Your task to perform on an android device: remove spam from my inbox in the gmail app Image 0: 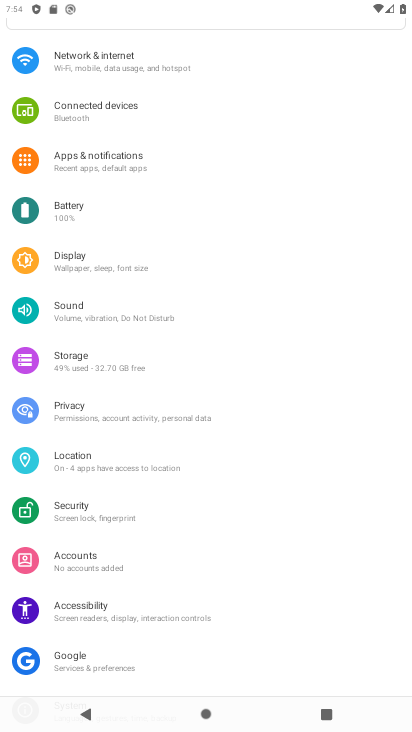
Step 0: press home button
Your task to perform on an android device: remove spam from my inbox in the gmail app Image 1: 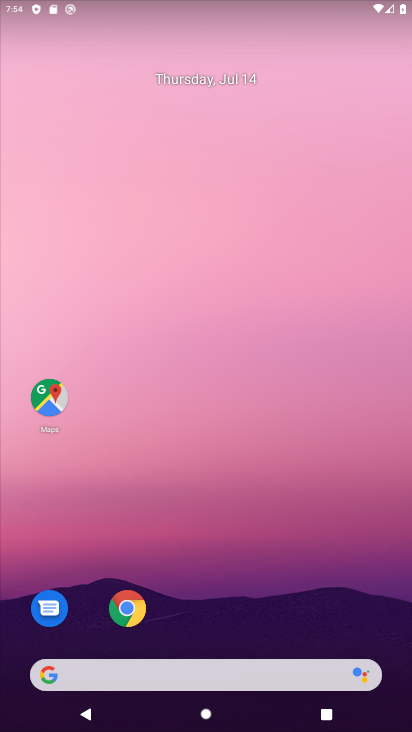
Step 1: drag from (206, 554) to (125, 77)
Your task to perform on an android device: remove spam from my inbox in the gmail app Image 2: 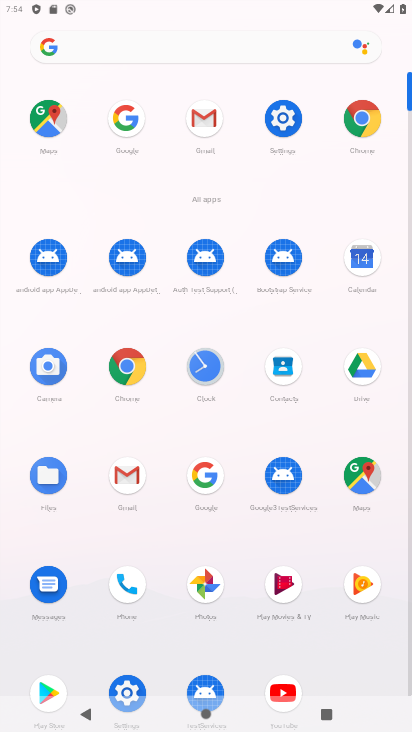
Step 2: click (201, 123)
Your task to perform on an android device: remove spam from my inbox in the gmail app Image 3: 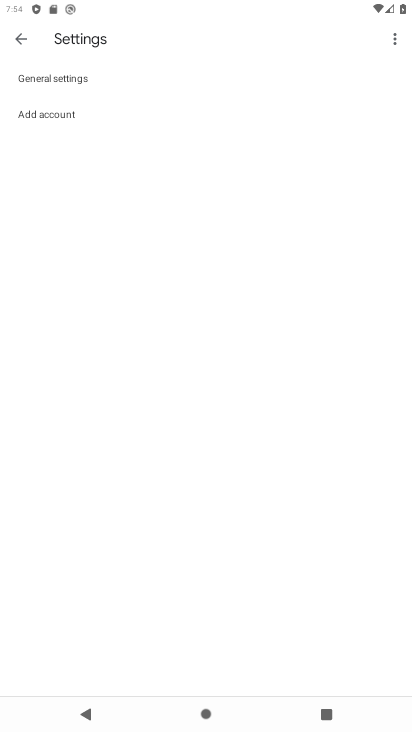
Step 3: click (20, 34)
Your task to perform on an android device: remove spam from my inbox in the gmail app Image 4: 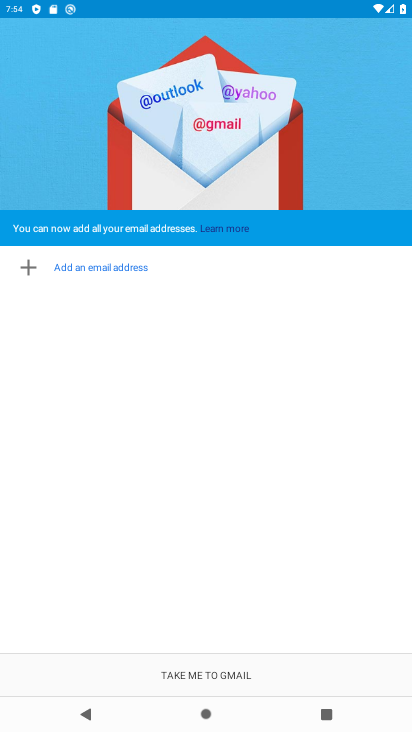
Step 4: click (223, 674)
Your task to perform on an android device: remove spam from my inbox in the gmail app Image 5: 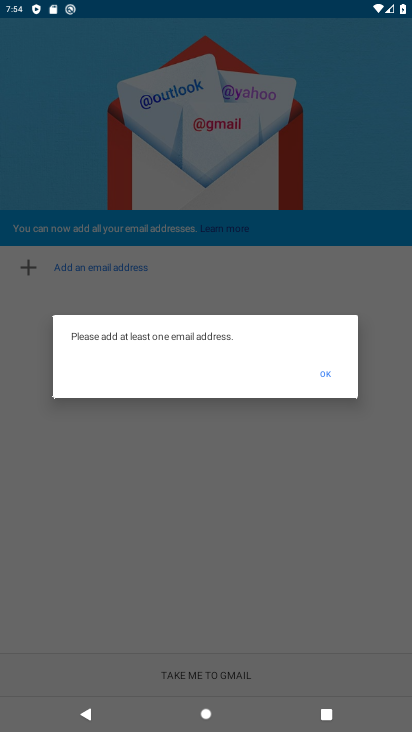
Step 5: click (323, 370)
Your task to perform on an android device: remove spam from my inbox in the gmail app Image 6: 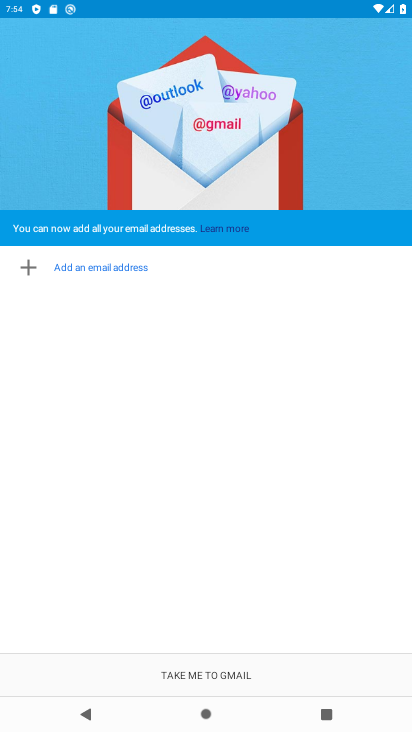
Step 6: task complete